Your task to perform on an android device: Open ESPN.com Image 0: 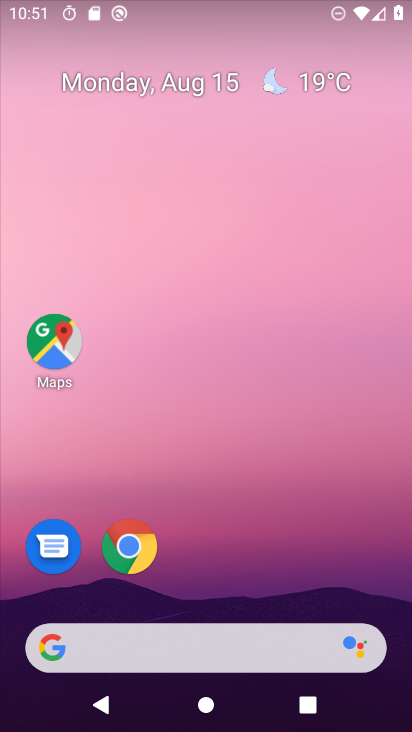
Step 0: click (131, 546)
Your task to perform on an android device: Open ESPN.com Image 1: 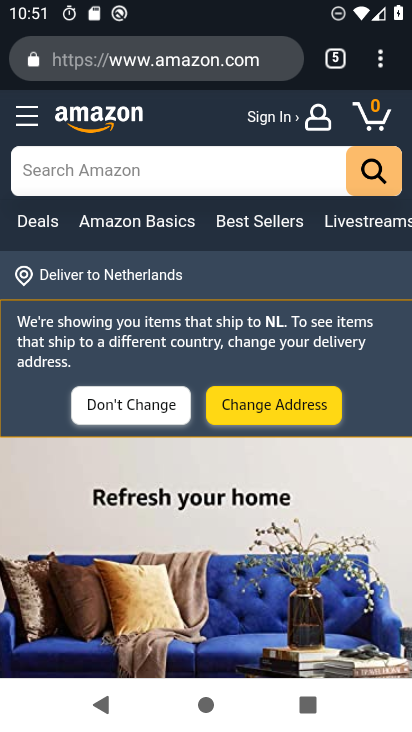
Step 1: drag from (381, 66) to (159, 121)
Your task to perform on an android device: Open ESPN.com Image 2: 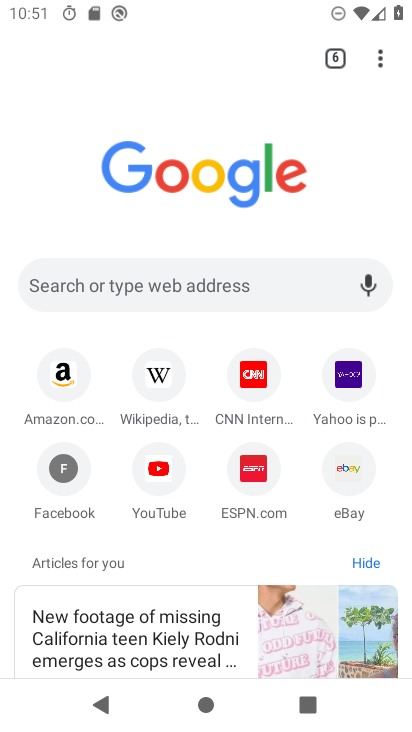
Step 2: click (254, 477)
Your task to perform on an android device: Open ESPN.com Image 3: 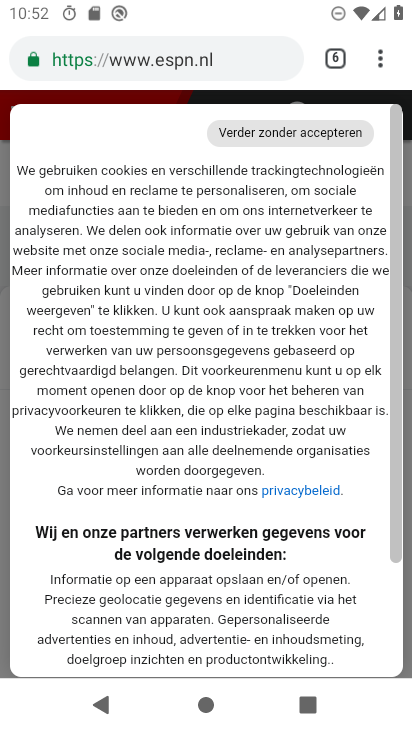
Step 3: task complete